Your task to perform on an android device: Open Google Chrome Image 0: 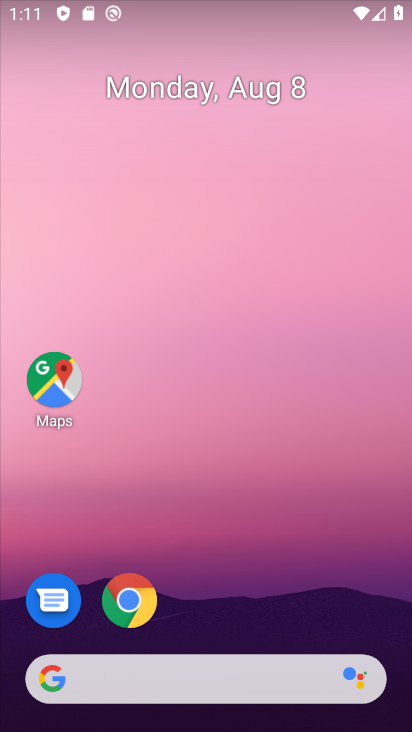
Step 0: press home button
Your task to perform on an android device: Open Google Chrome Image 1: 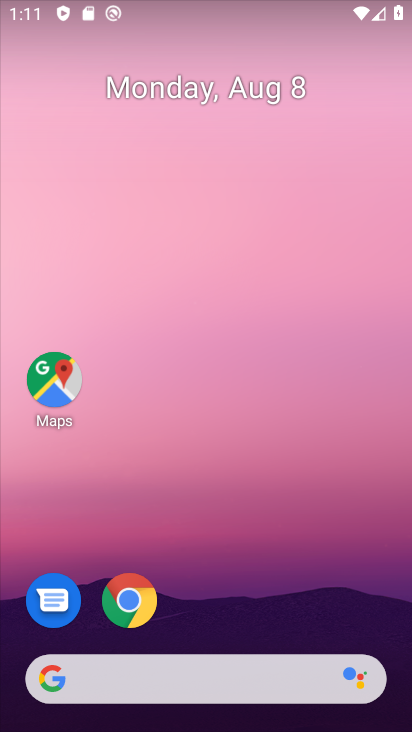
Step 1: click (145, 606)
Your task to perform on an android device: Open Google Chrome Image 2: 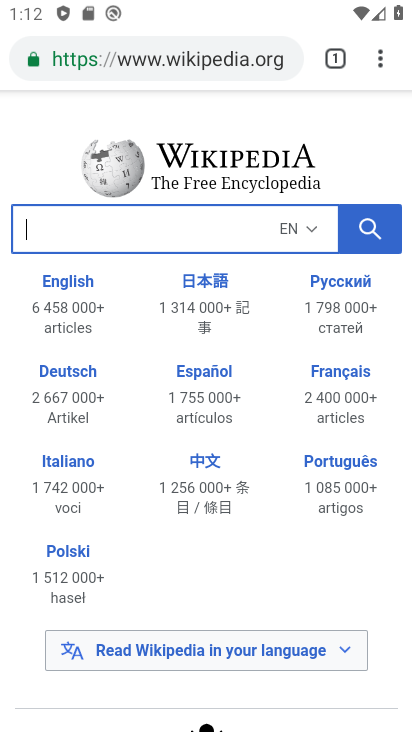
Step 2: task complete